Your task to perform on an android device: Clear the shopping cart on target. Search for usb-b on target, select the first entry, and add it to the cart. Image 0: 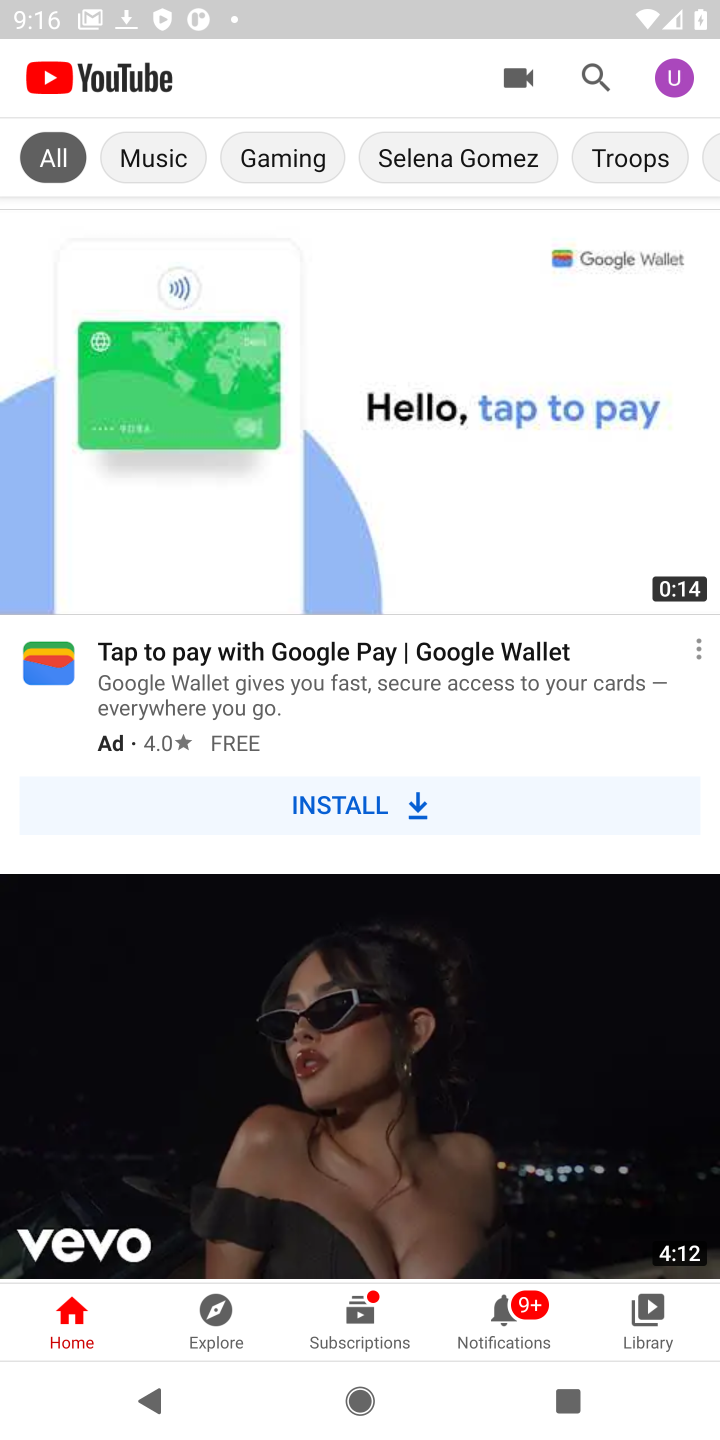
Step 0: press home button
Your task to perform on an android device: Clear the shopping cart on target. Search for usb-b on target, select the first entry, and add it to the cart. Image 1: 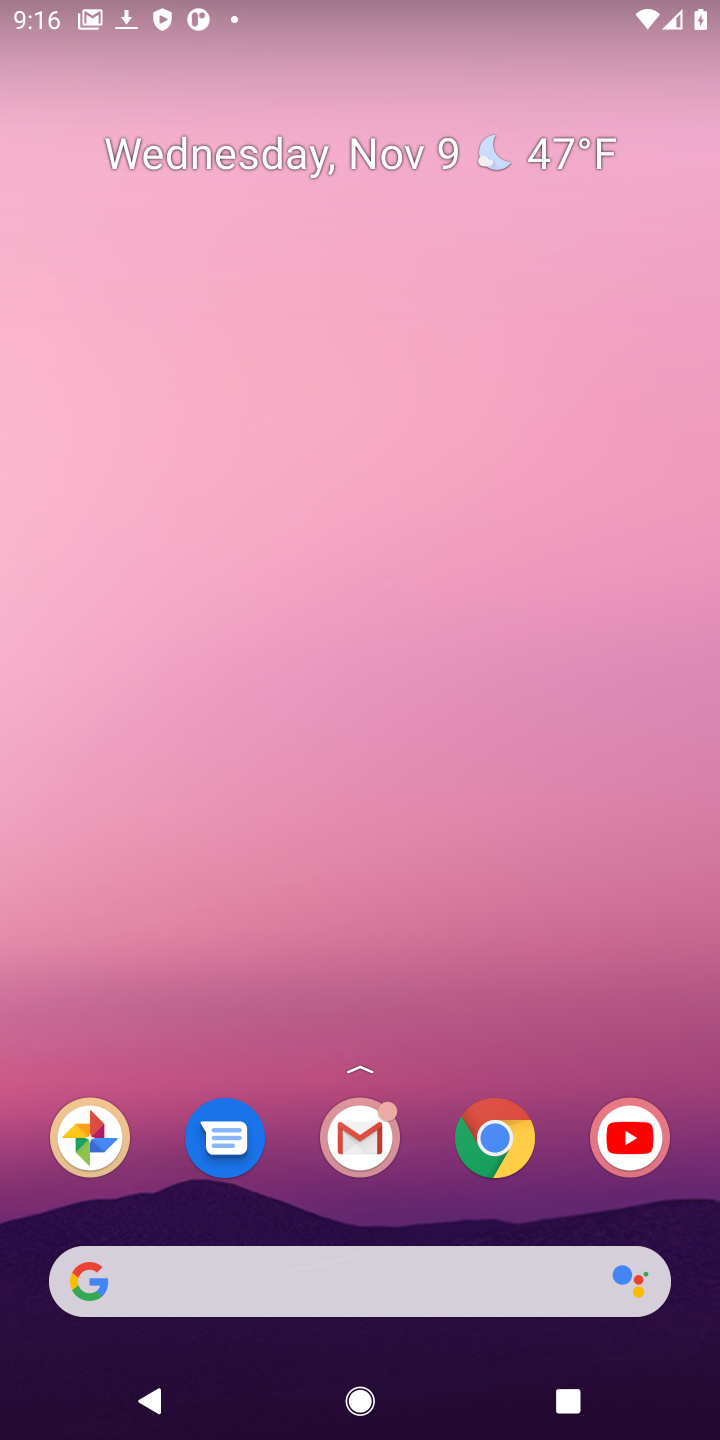
Step 1: drag from (418, 1221) to (532, 123)
Your task to perform on an android device: Clear the shopping cart on target. Search for usb-b on target, select the first entry, and add it to the cart. Image 2: 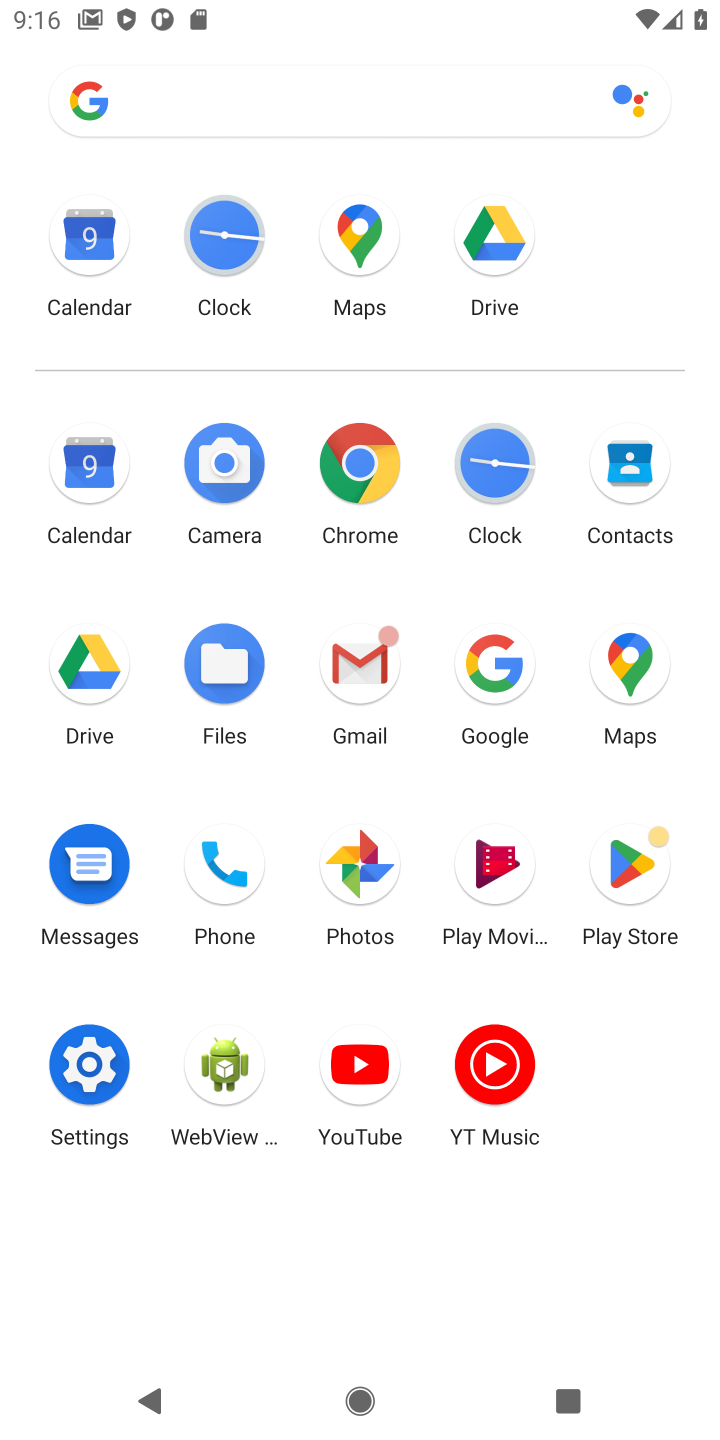
Step 2: click (358, 473)
Your task to perform on an android device: Clear the shopping cart on target. Search for usb-b on target, select the first entry, and add it to the cart. Image 3: 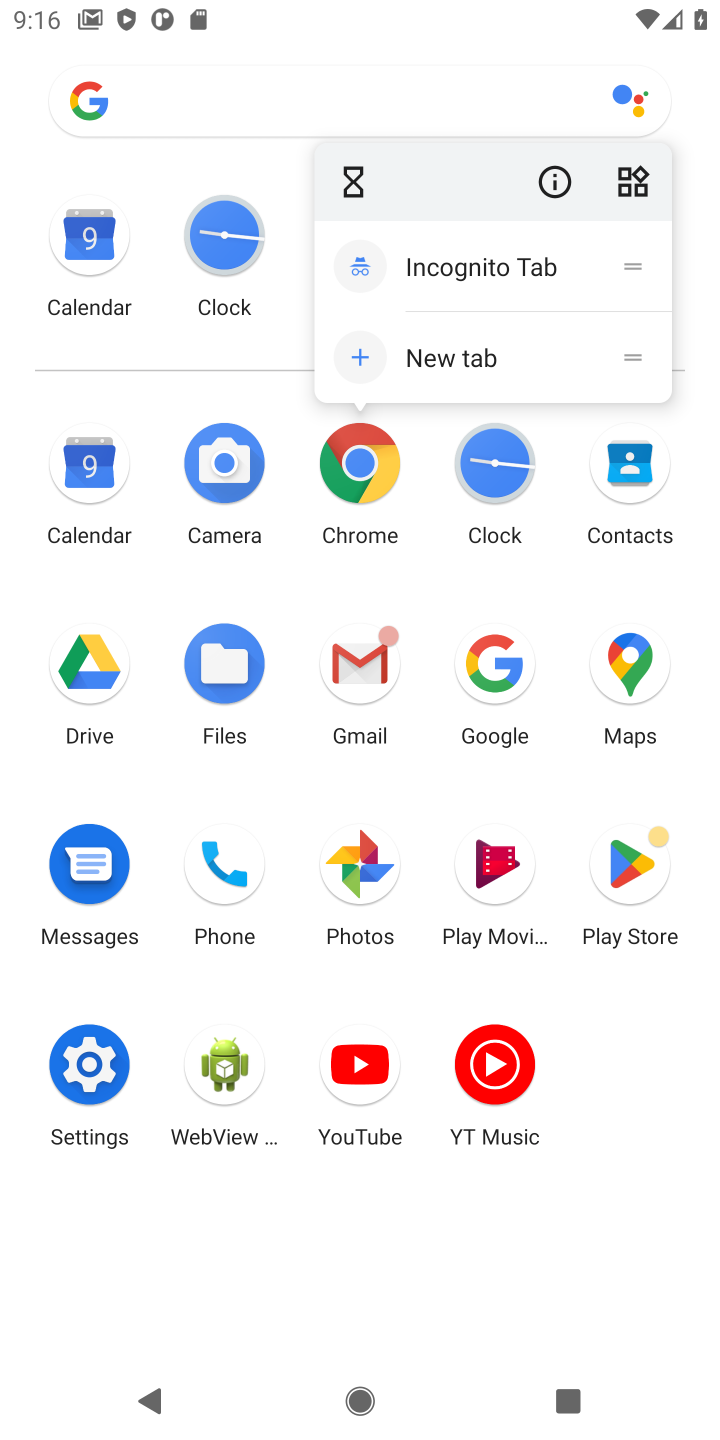
Step 3: click (358, 473)
Your task to perform on an android device: Clear the shopping cart on target. Search for usb-b on target, select the first entry, and add it to the cart. Image 4: 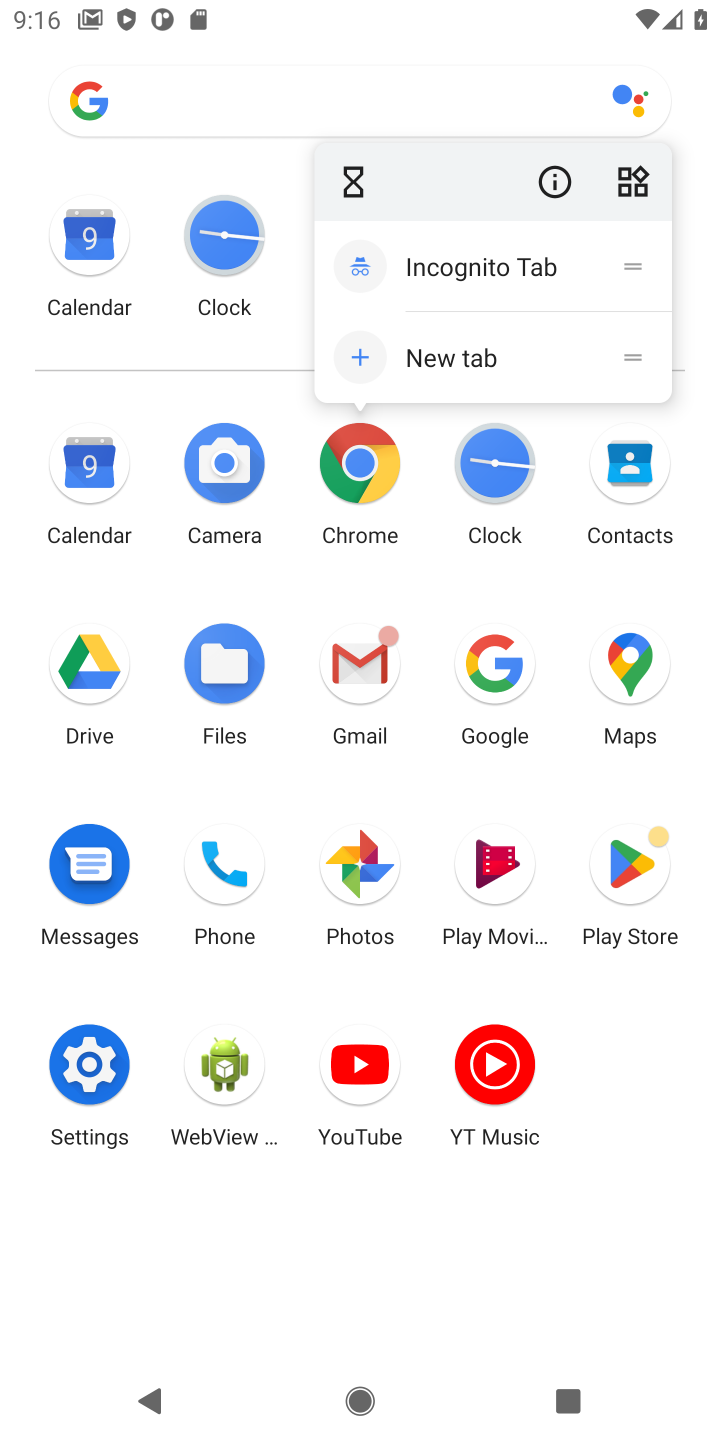
Step 4: click (362, 454)
Your task to perform on an android device: Clear the shopping cart on target. Search for usb-b on target, select the first entry, and add it to the cart. Image 5: 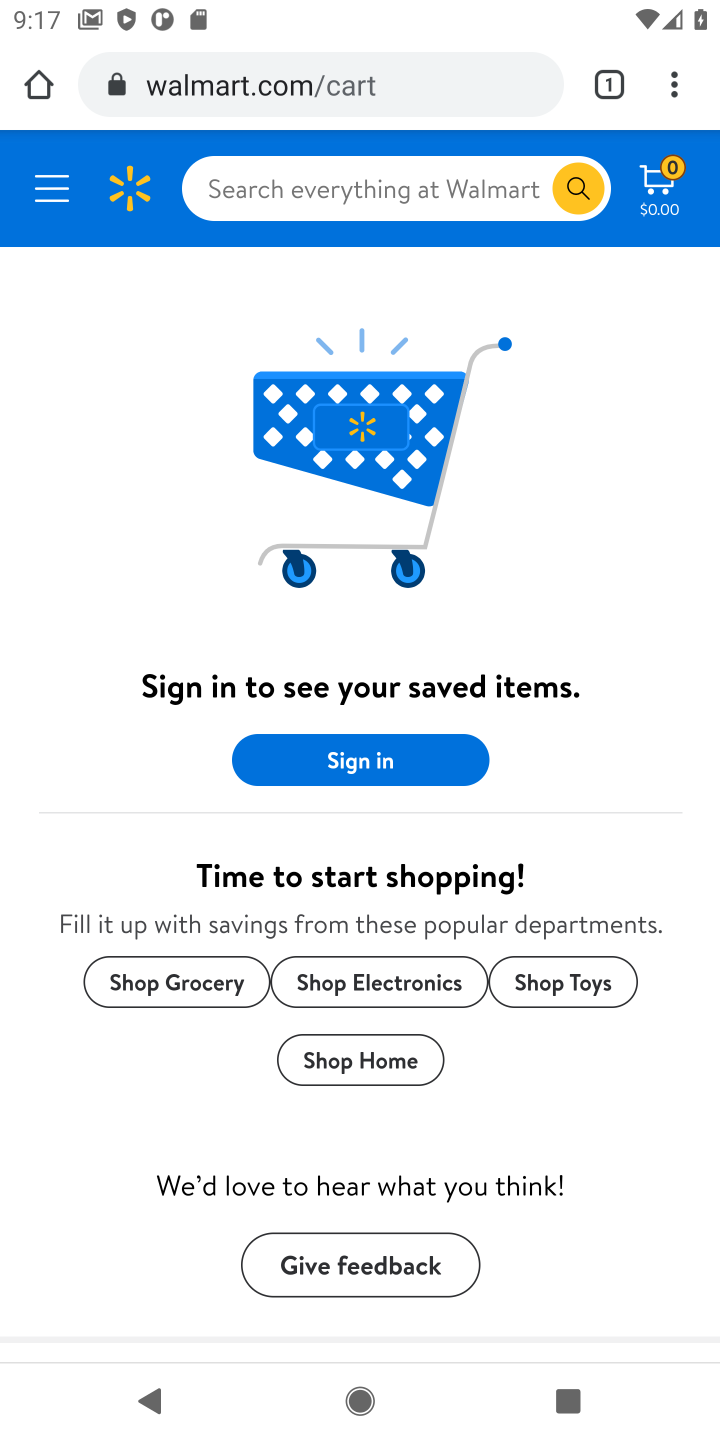
Step 5: click (277, 77)
Your task to perform on an android device: Clear the shopping cart on target. Search for usb-b on target, select the first entry, and add it to the cart. Image 6: 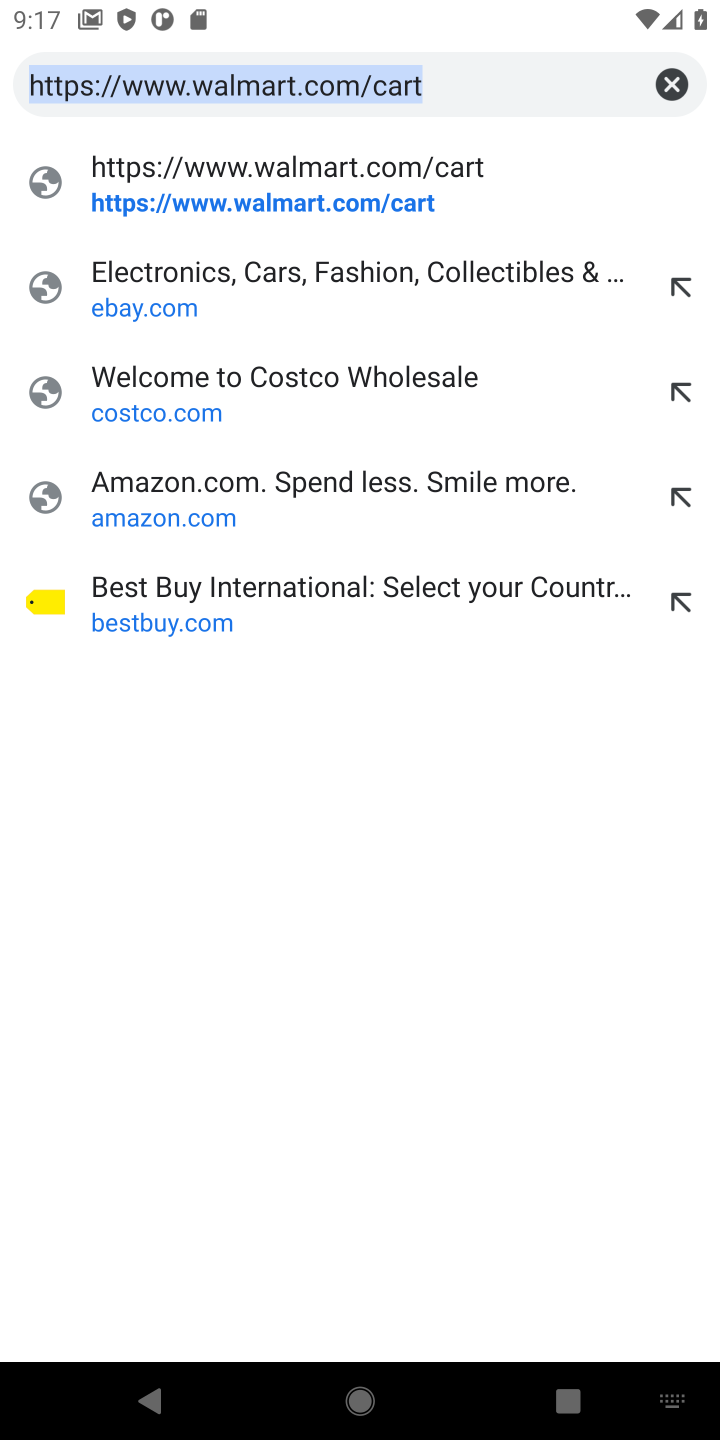
Step 6: type "target.com"
Your task to perform on an android device: Clear the shopping cart on target. Search for usb-b on target, select the first entry, and add it to the cart. Image 7: 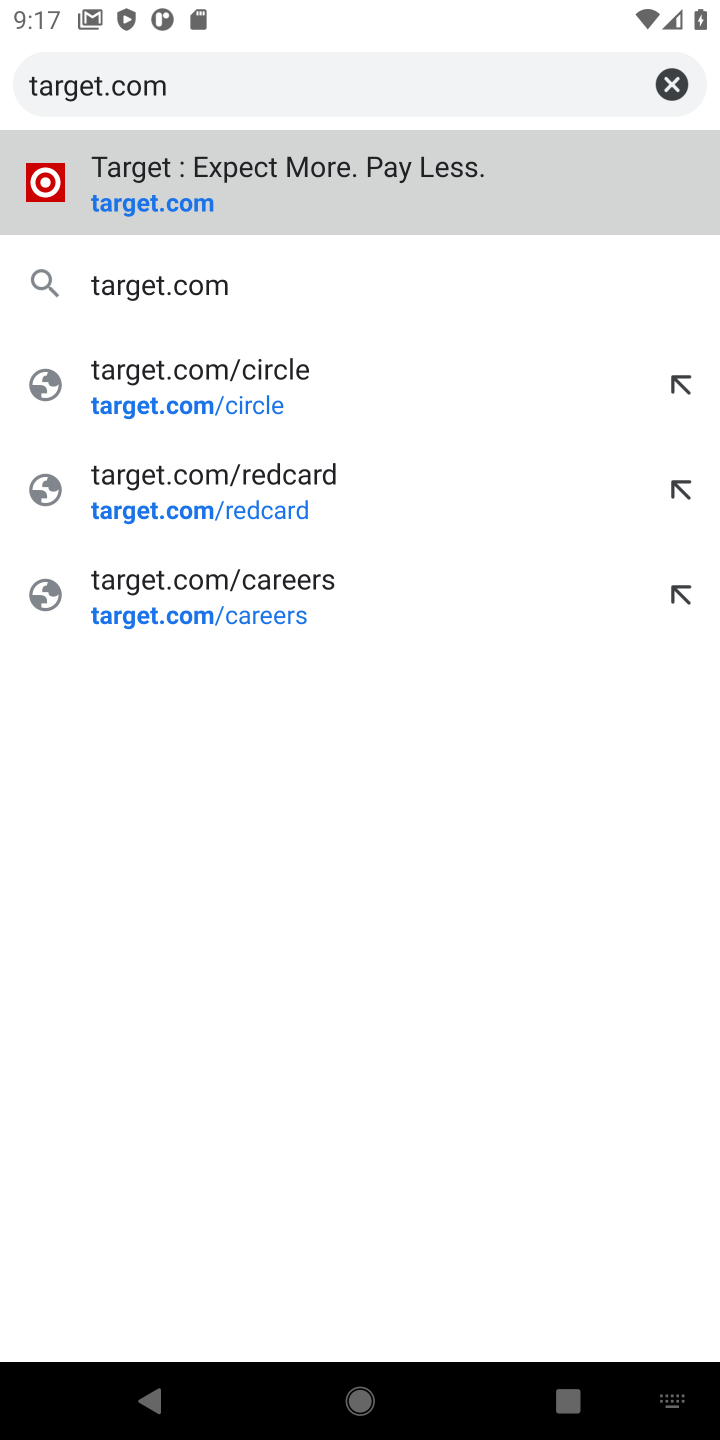
Step 7: press enter
Your task to perform on an android device: Clear the shopping cart on target. Search for usb-b on target, select the first entry, and add it to the cart. Image 8: 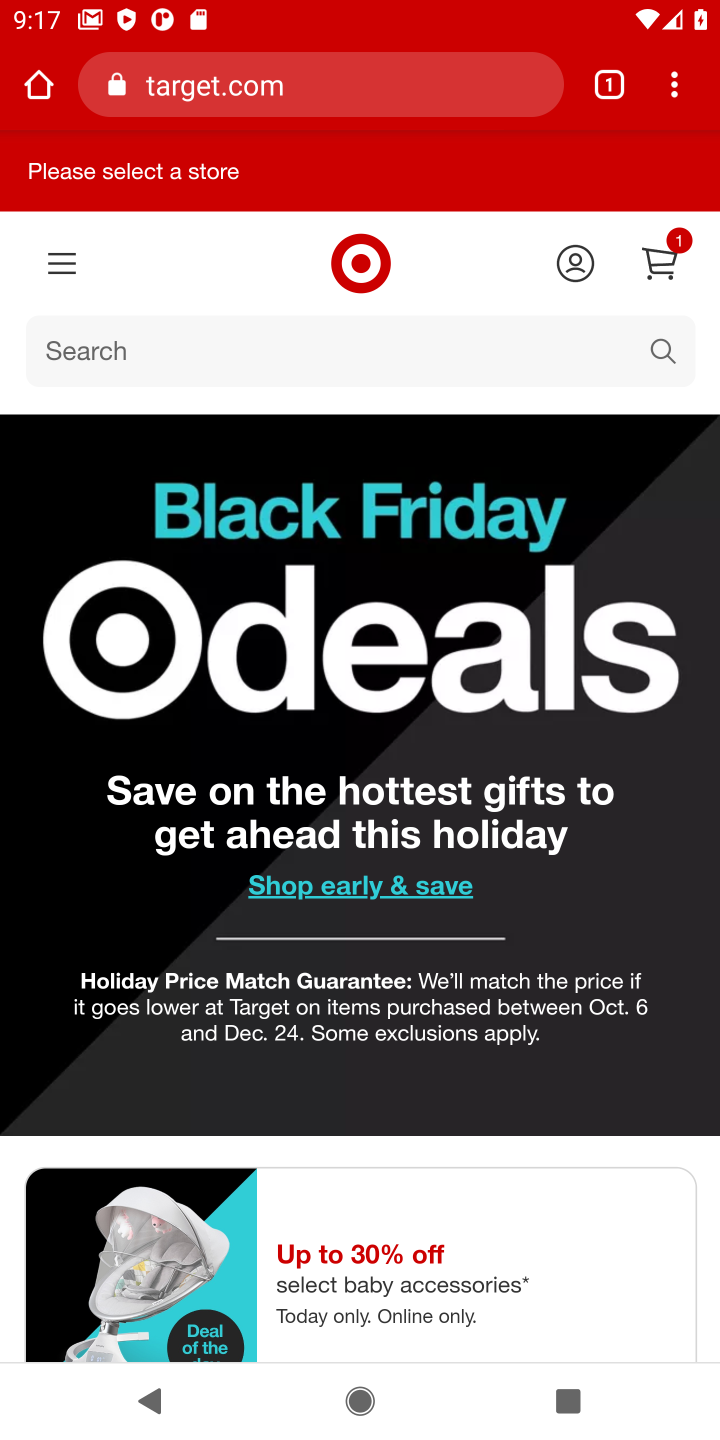
Step 8: click (663, 268)
Your task to perform on an android device: Clear the shopping cart on target. Search for usb-b on target, select the first entry, and add it to the cart. Image 9: 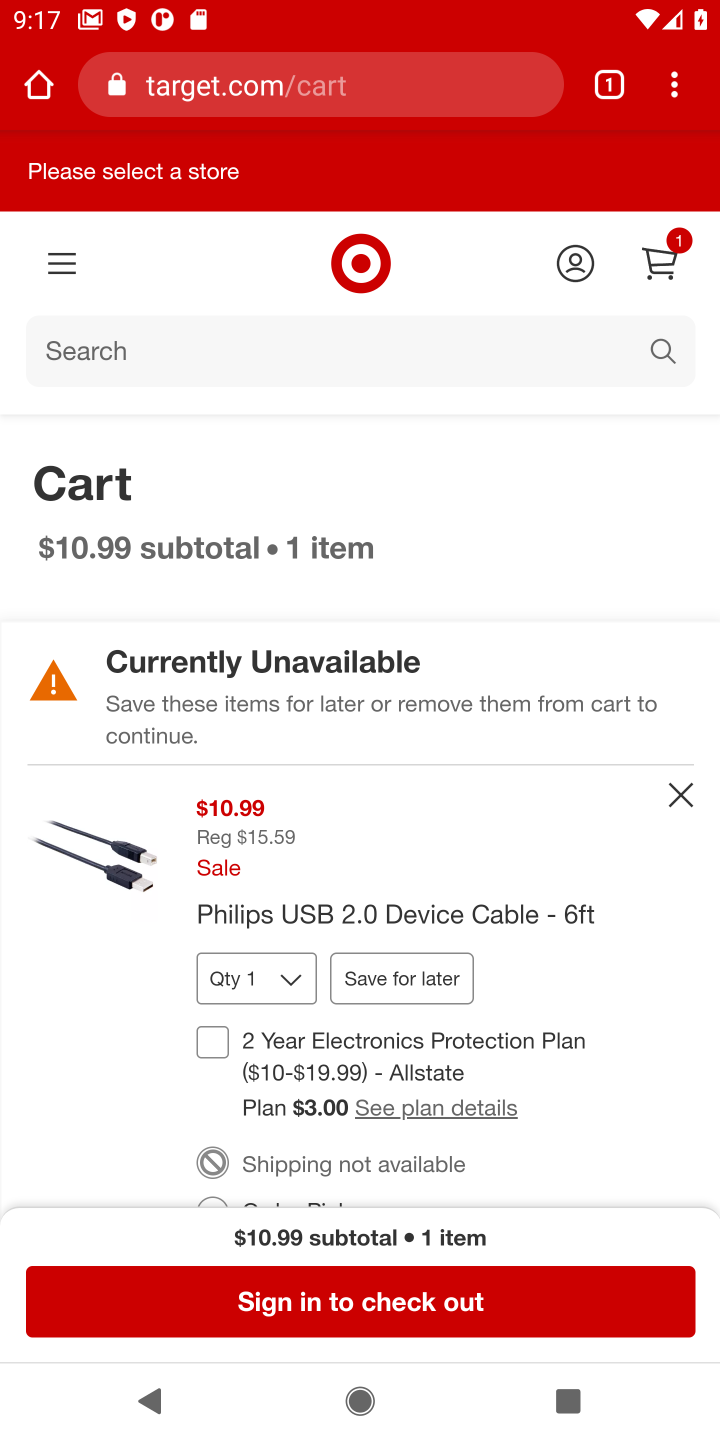
Step 9: click (679, 801)
Your task to perform on an android device: Clear the shopping cart on target. Search for usb-b on target, select the first entry, and add it to the cart. Image 10: 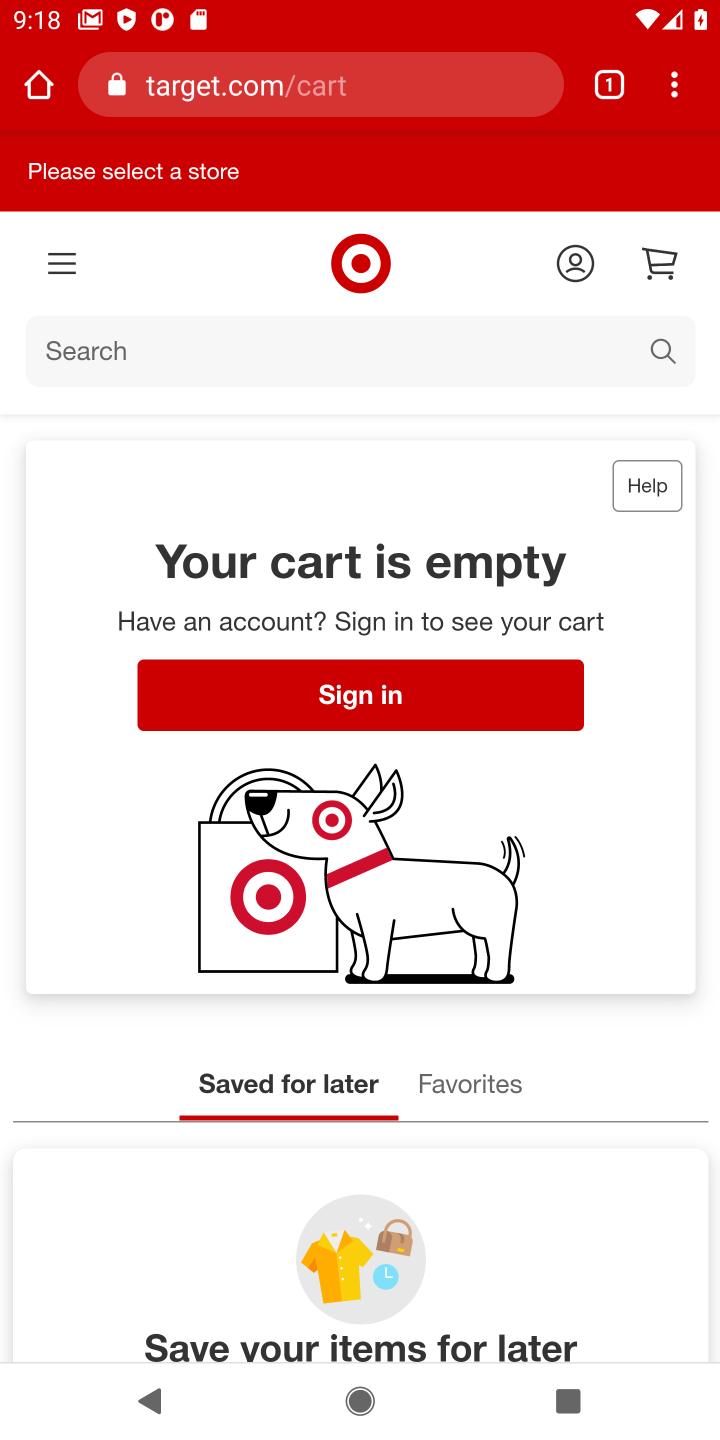
Step 10: click (285, 349)
Your task to perform on an android device: Clear the shopping cart on target. Search for usb-b on target, select the first entry, and add it to the cart. Image 11: 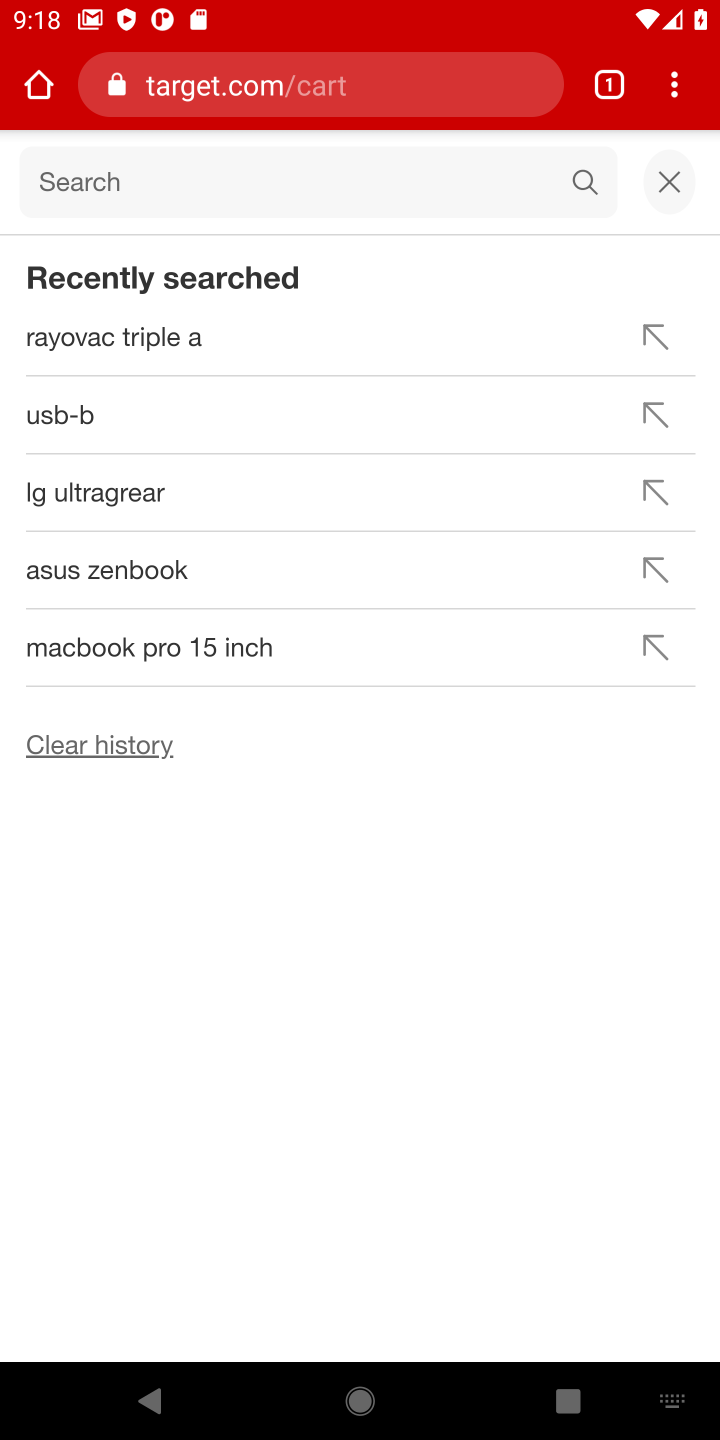
Step 11: type "usb-b"
Your task to perform on an android device: Clear the shopping cart on target. Search for usb-b on target, select the first entry, and add it to the cart. Image 12: 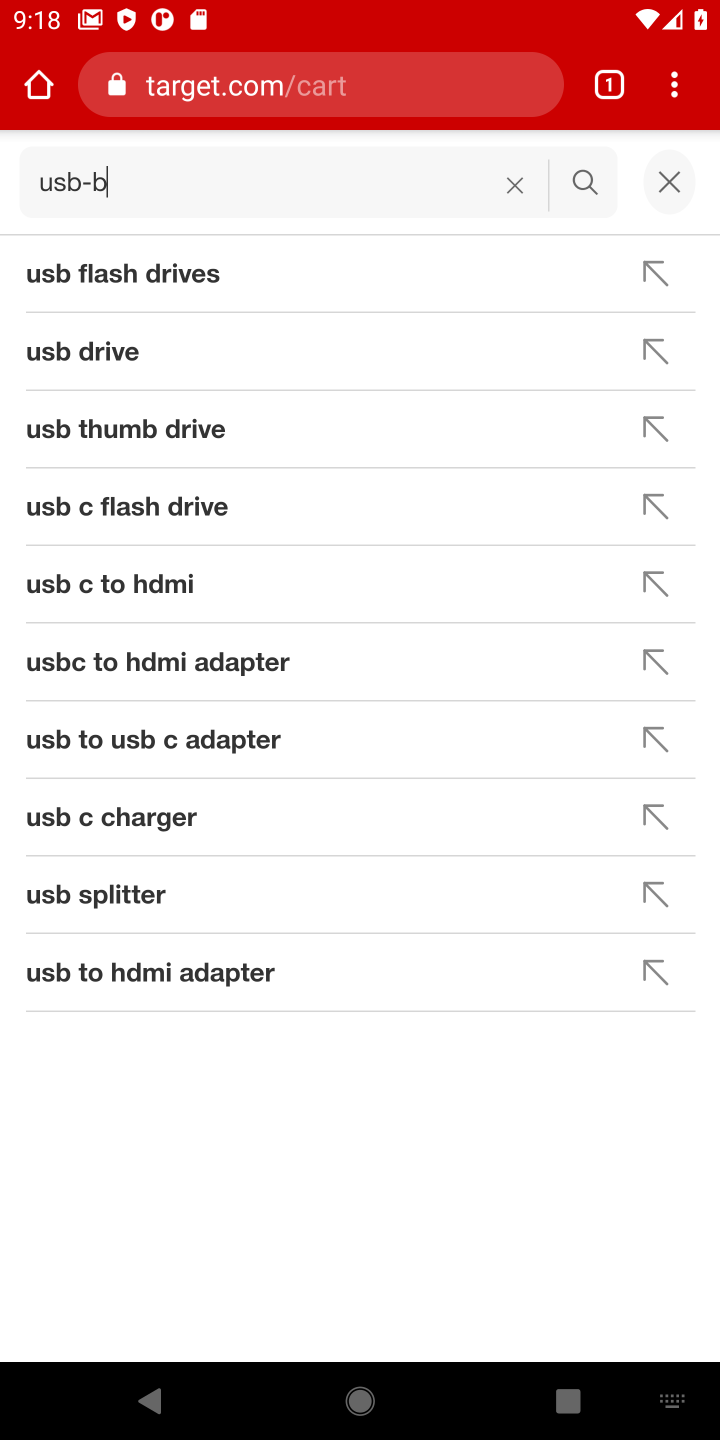
Step 12: press enter
Your task to perform on an android device: Clear the shopping cart on target. Search for usb-b on target, select the first entry, and add it to the cart. Image 13: 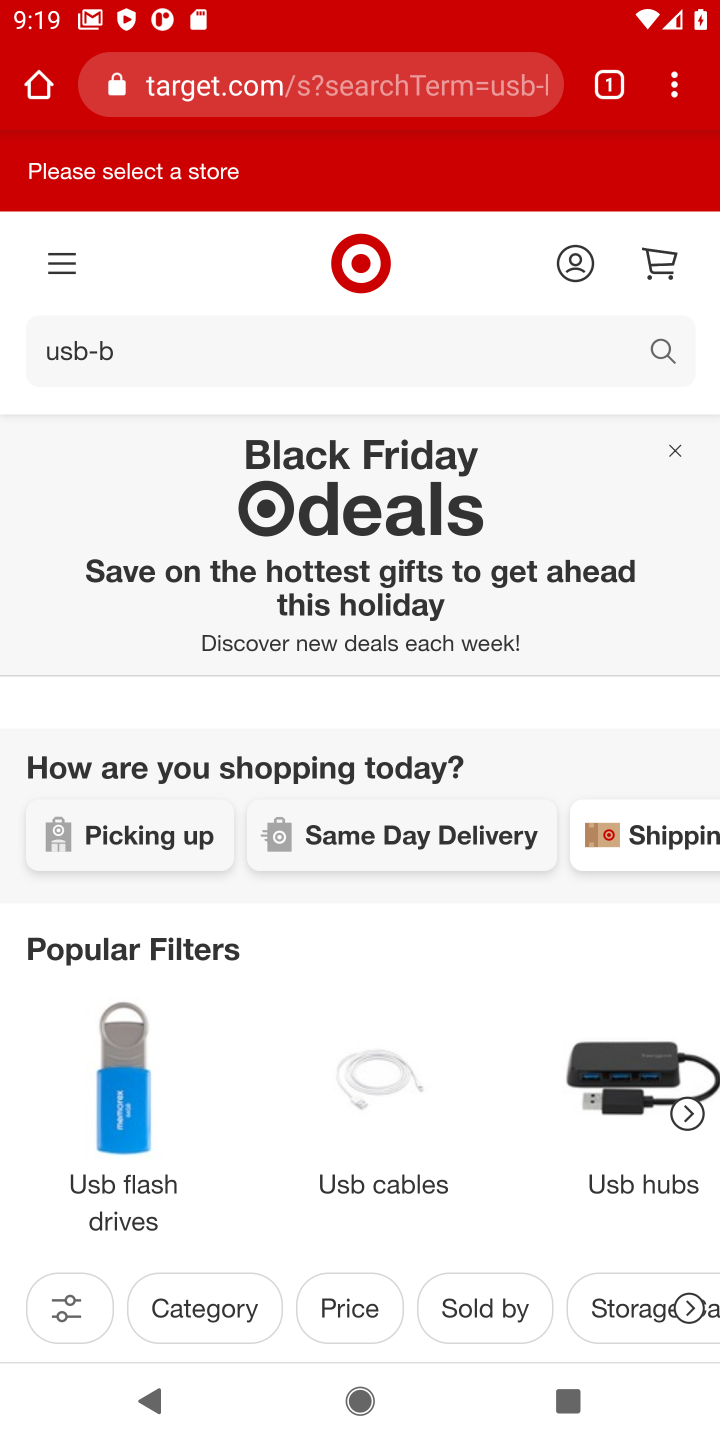
Step 13: drag from (343, 1146) to (267, 299)
Your task to perform on an android device: Clear the shopping cart on target. Search for usb-b on target, select the first entry, and add it to the cart. Image 14: 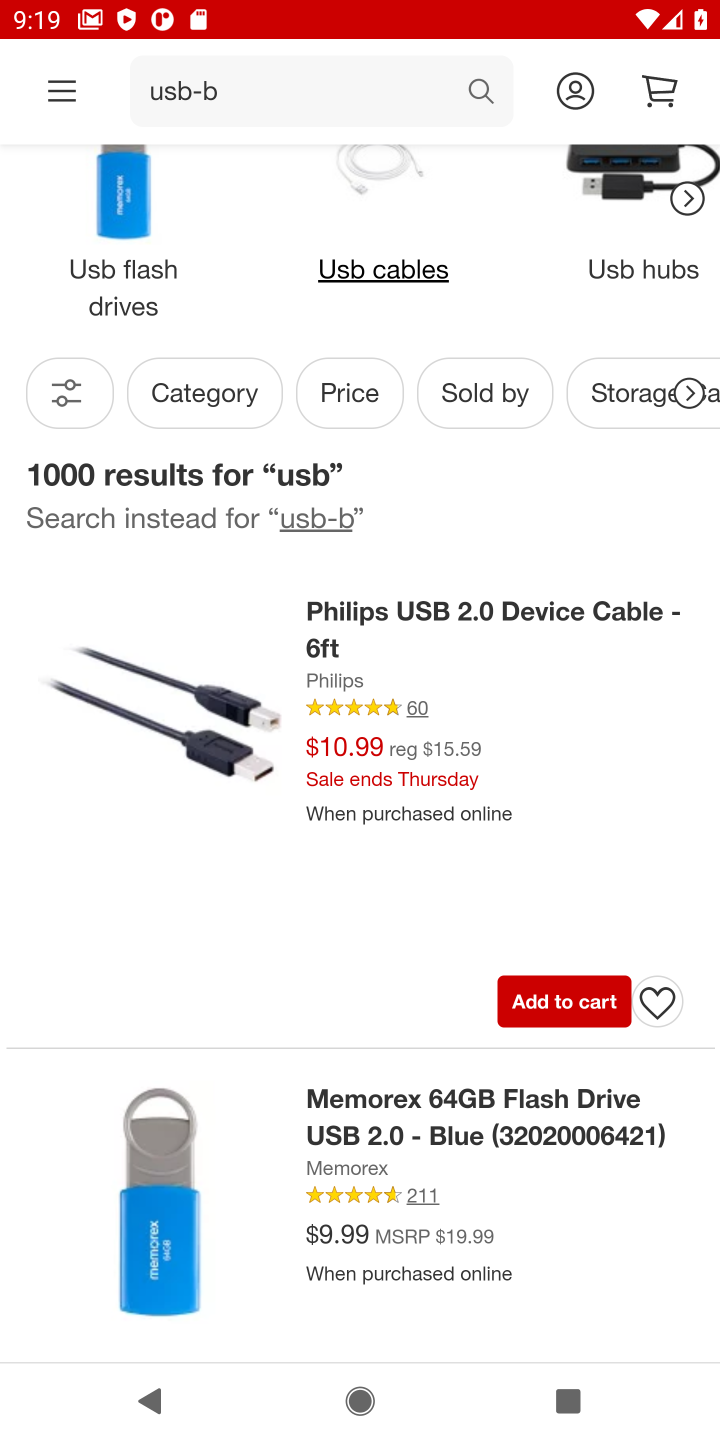
Step 14: click (579, 1011)
Your task to perform on an android device: Clear the shopping cart on target. Search for usb-b on target, select the first entry, and add it to the cart. Image 15: 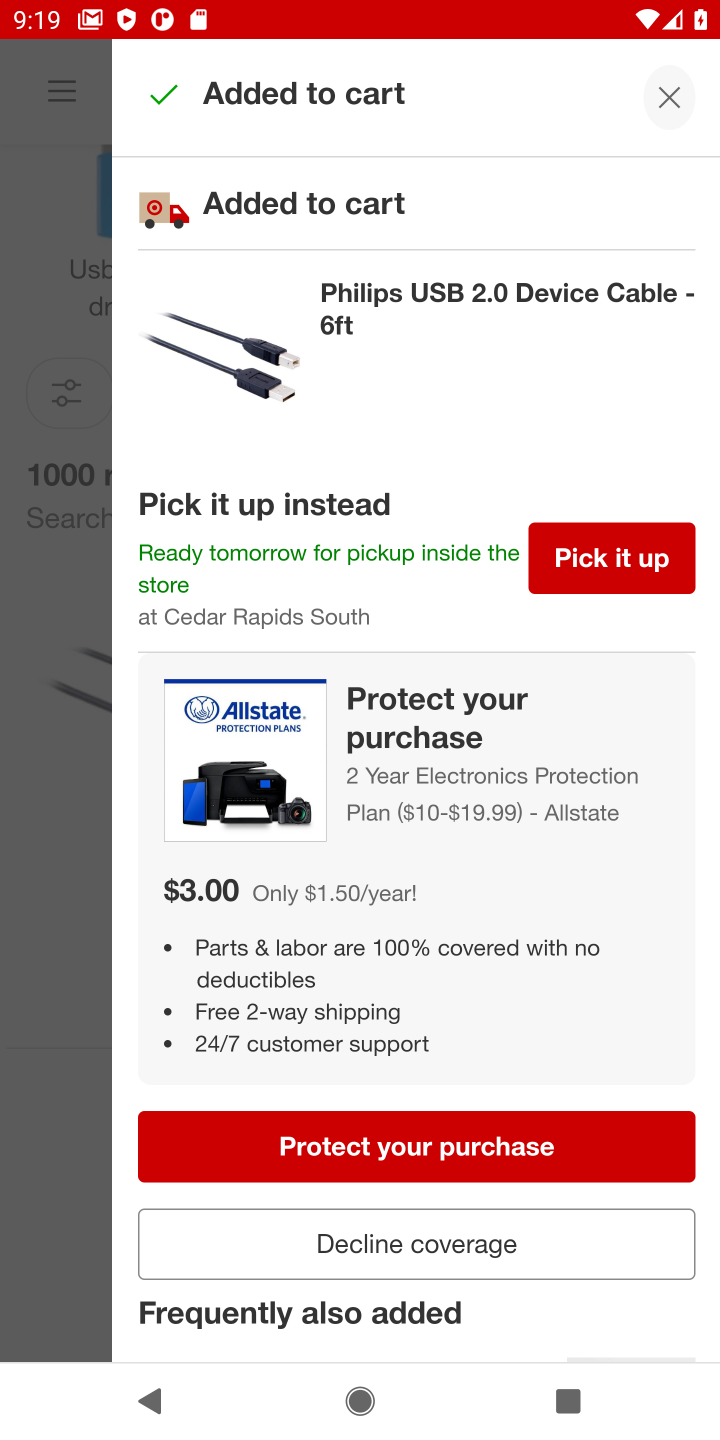
Step 15: task complete